Your task to perform on an android device: turn on notifications settings in the gmail app Image 0: 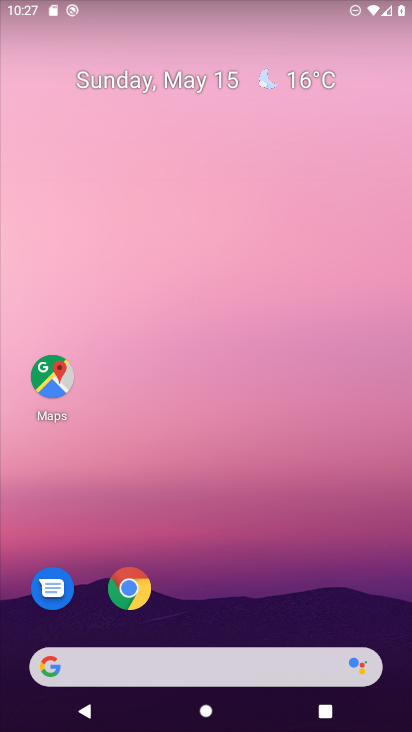
Step 0: drag from (198, 610) to (267, 17)
Your task to perform on an android device: turn on notifications settings in the gmail app Image 1: 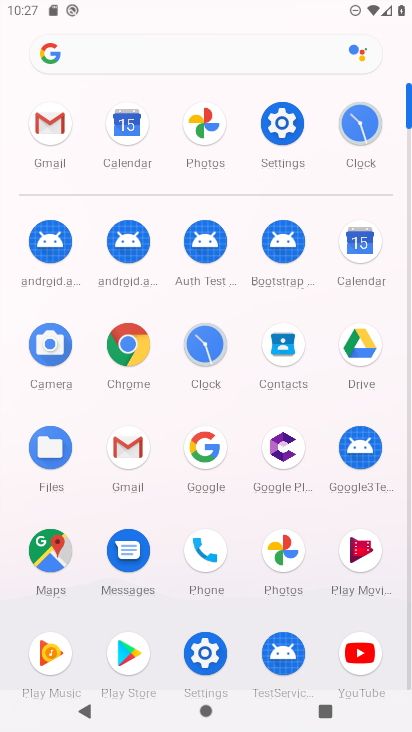
Step 1: click (118, 440)
Your task to perform on an android device: turn on notifications settings in the gmail app Image 2: 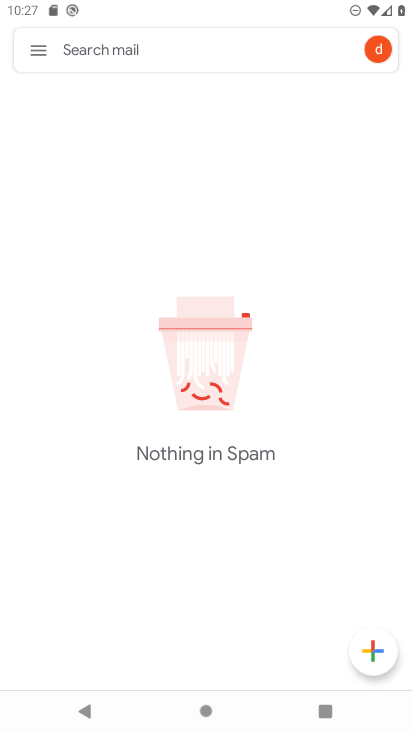
Step 2: click (35, 57)
Your task to perform on an android device: turn on notifications settings in the gmail app Image 3: 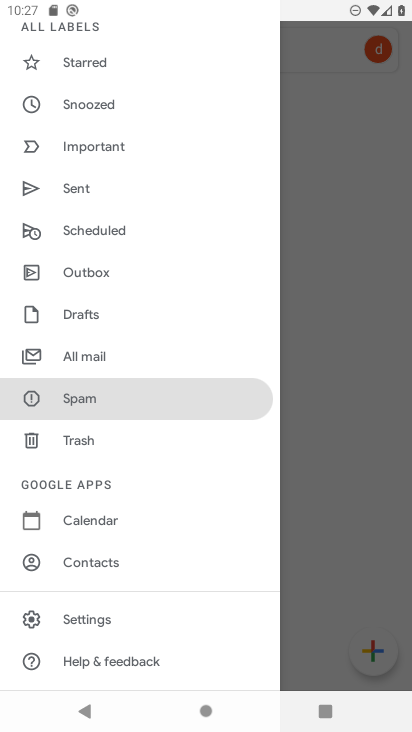
Step 3: click (101, 614)
Your task to perform on an android device: turn on notifications settings in the gmail app Image 4: 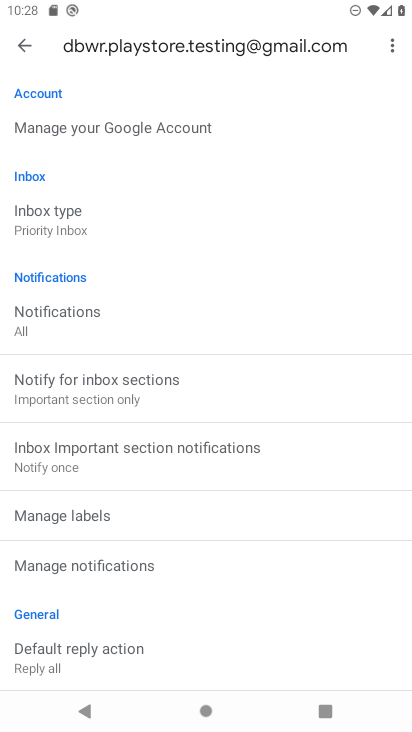
Step 4: click (126, 575)
Your task to perform on an android device: turn on notifications settings in the gmail app Image 5: 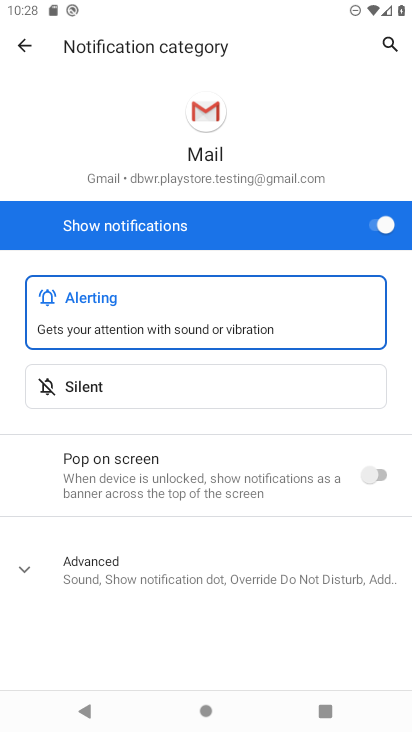
Step 5: task complete